Your task to perform on an android device: Open Google Chrome and open the bookmarks view Image 0: 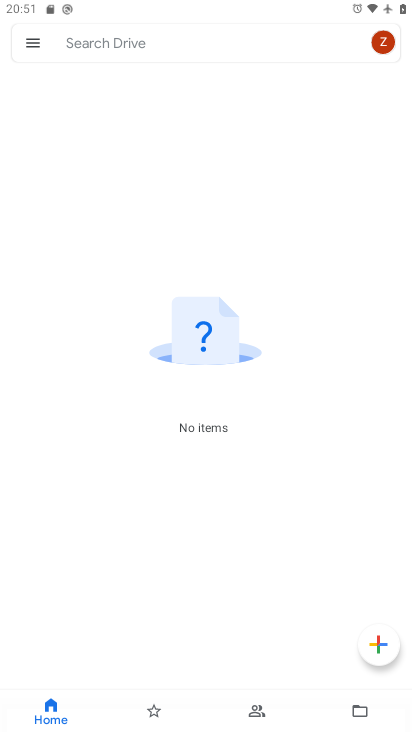
Step 0: press home button
Your task to perform on an android device: Open Google Chrome and open the bookmarks view Image 1: 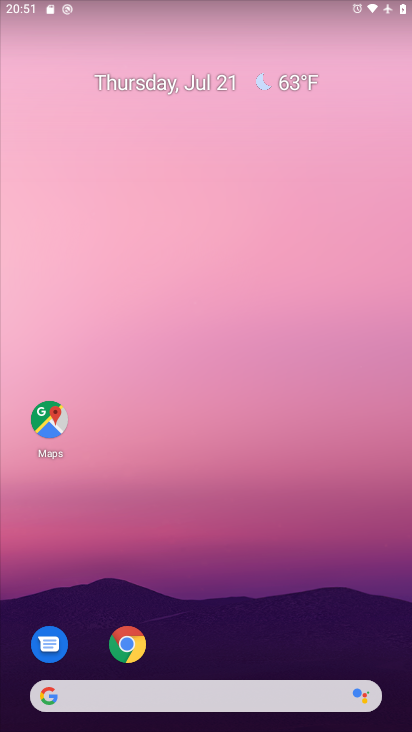
Step 1: click (140, 643)
Your task to perform on an android device: Open Google Chrome and open the bookmarks view Image 2: 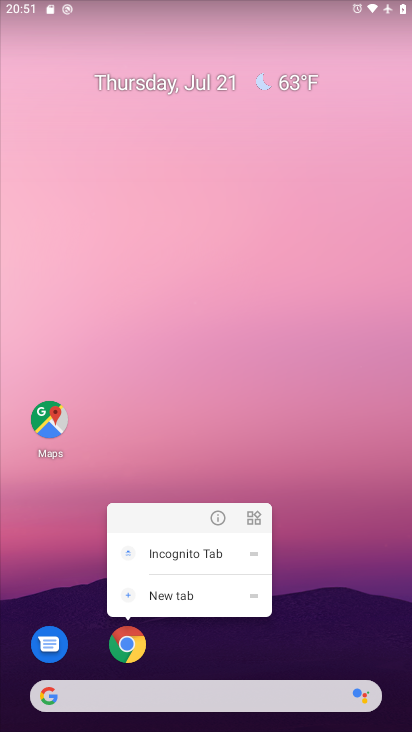
Step 2: click (123, 663)
Your task to perform on an android device: Open Google Chrome and open the bookmarks view Image 3: 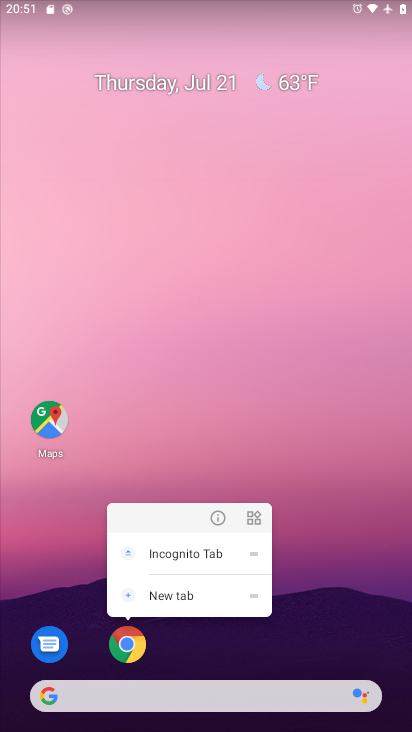
Step 3: click (123, 661)
Your task to perform on an android device: Open Google Chrome and open the bookmarks view Image 4: 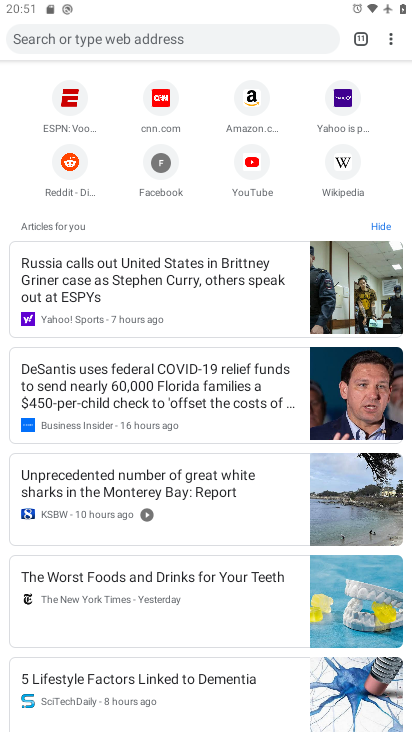
Step 4: click (399, 33)
Your task to perform on an android device: Open Google Chrome and open the bookmarks view Image 5: 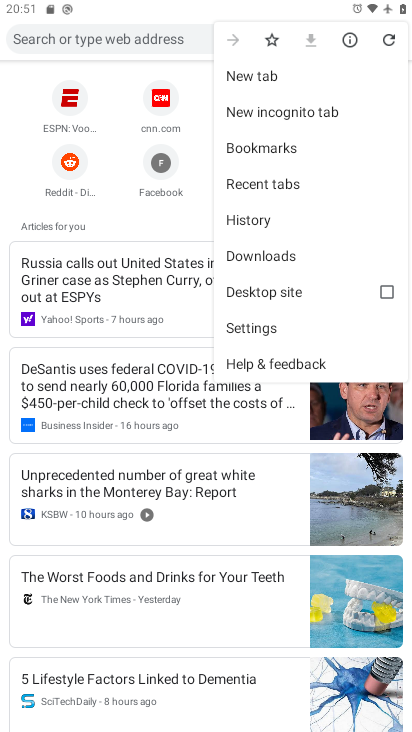
Step 5: click (264, 151)
Your task to perform on an android device: Open Google Chrome and open the bookmarks view Image 6: 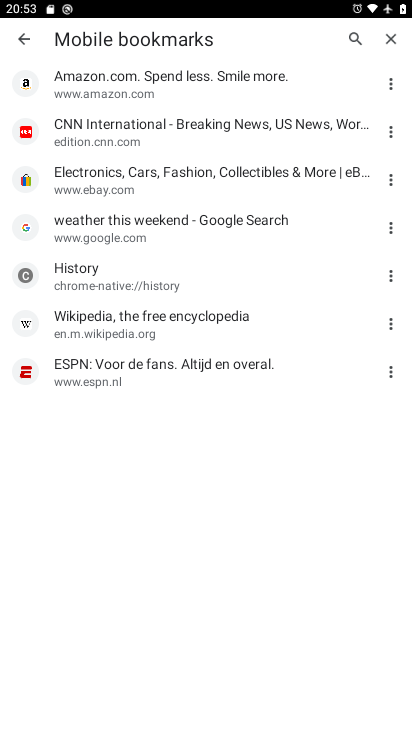
Step 6: task complete